Your task to perform on an android device: Do I have any events tomorrow? Image 0: 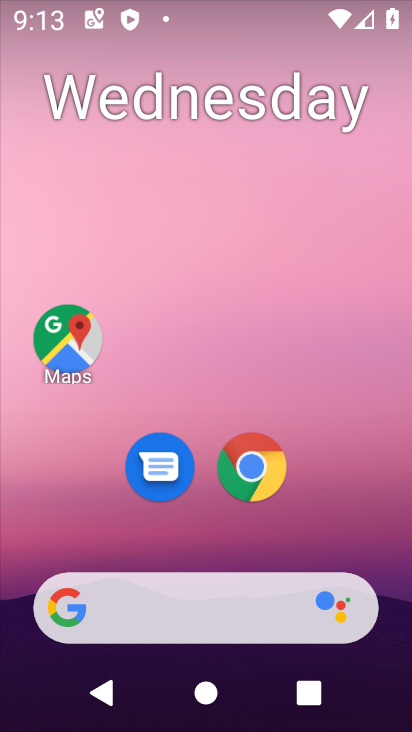
Step 0: click (264, 101)
Your task to perform on an android device: Do I have any events tomorrow? Image 1: 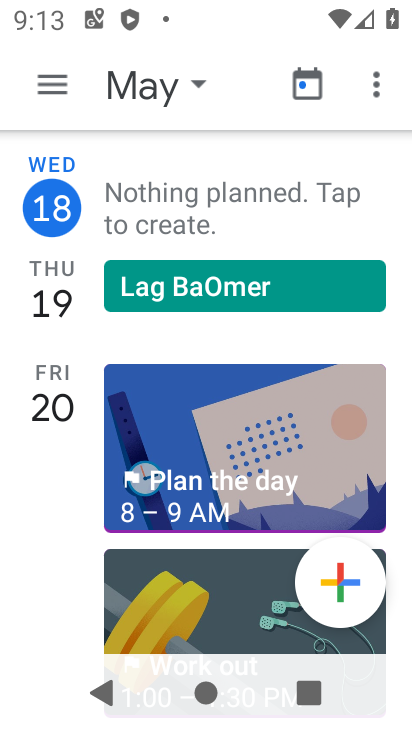
Step 1: click (61, 314)
Your task to perform on an android device: Do I have any events tomorrow? Image 2: 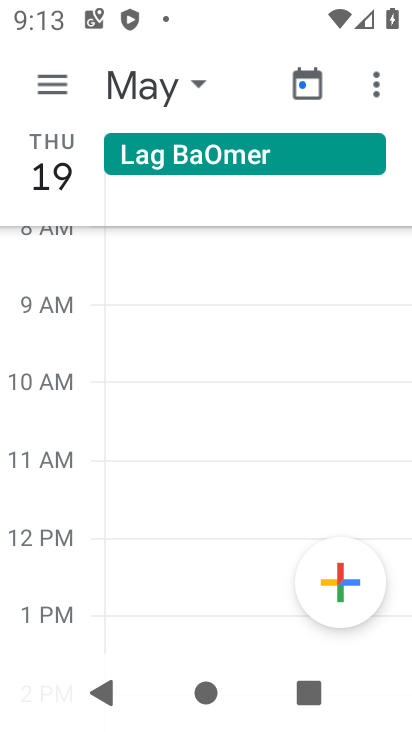
Step 2: task complete